Your task to perform on an android device: turn on the 24-hour format for clock Image 0: 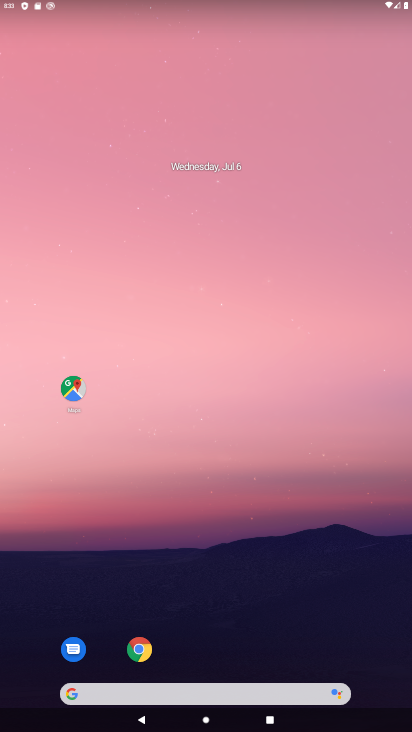
Step 0: drag from (244, 423) to (300, 73)
Your task to perform on an android device: turn on the 24-hour format for clock Image 1: 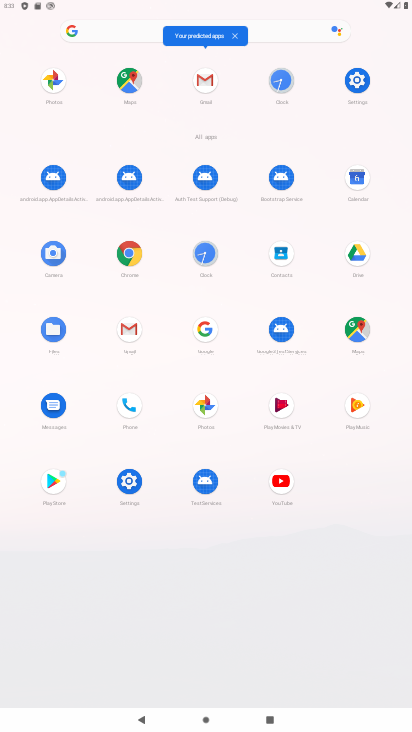
Step 1: drag from (235, 686) to (293, 493)
Your task to perform on an android device: turn on the 24-hour format for clock Image 2: 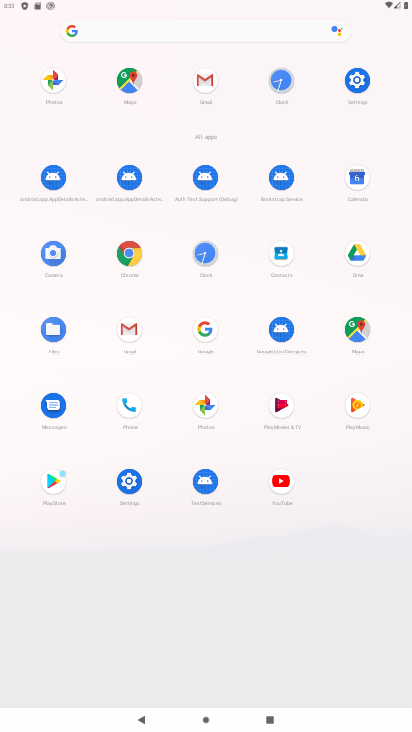
Step 2: click (210, 247)
Your task to perform on an android device: turn on the 24-hour format for clock Image 3: 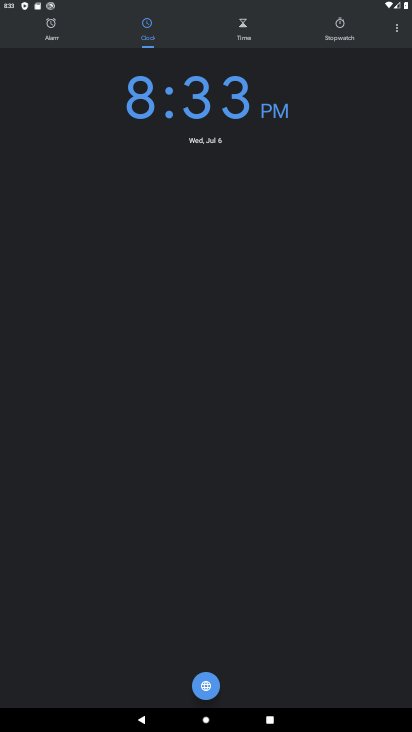
Step 3: click (399, 30)
Your task to perform on an android device: turn on the 24-hour format for clock Image 4: 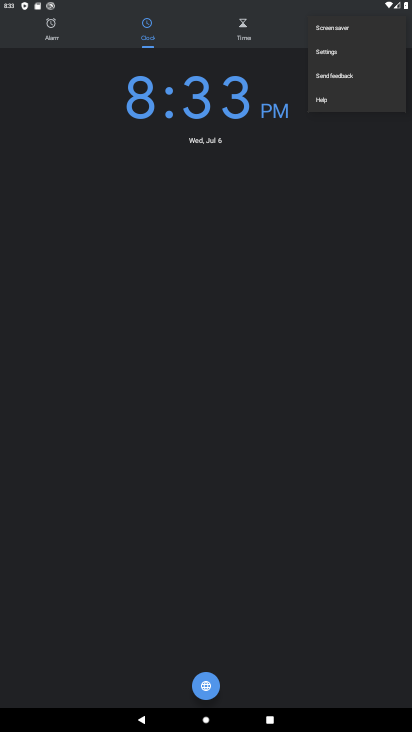
Step 4: click (332, 53)
Your task to perform on an android device: turn on the 24-hour format for clock Image 5: 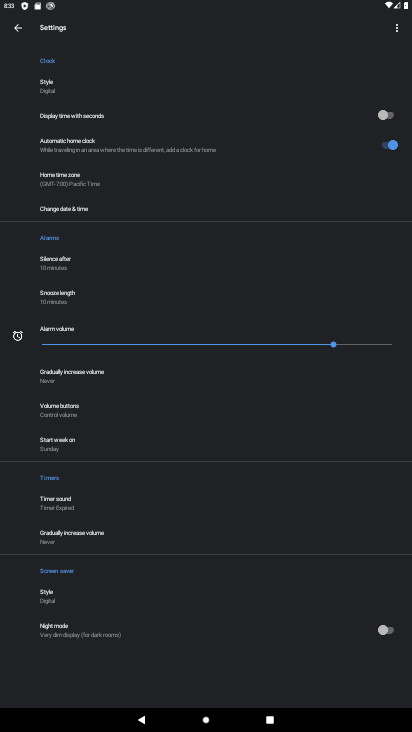
Step 5: click (79, 209)
Your task to perform on an android device: turn on the 24-hour format for clock Image 6: 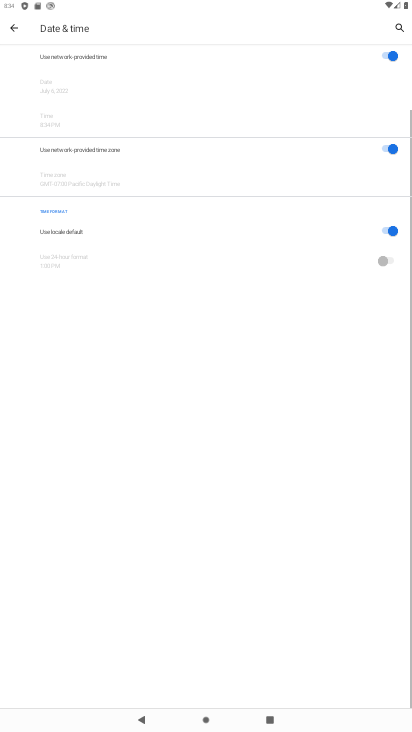
Step 6: click (382, 228)
Your task to perform on an android device: turn on the 24-hour format for clock Image 7: 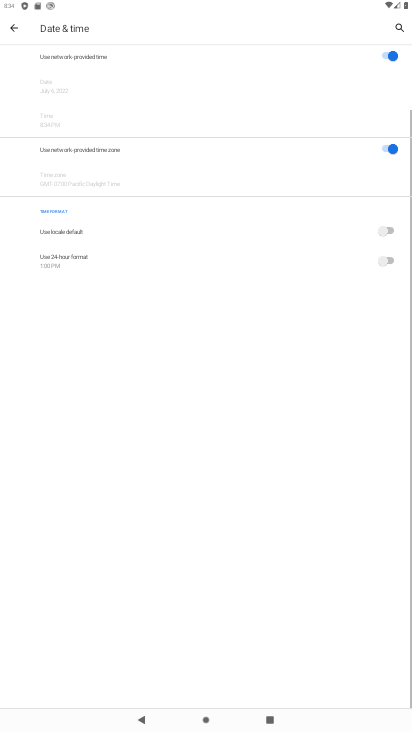
Step 7: click (391, 258)
Your task to perform on an android device: turn on the 24-hour format for clock Image 8: 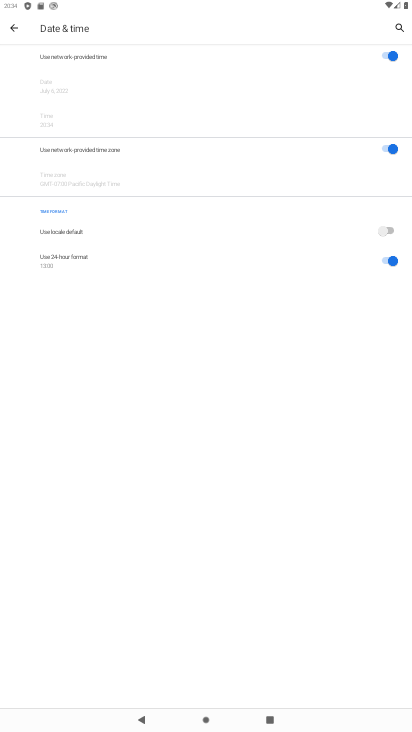
Step 8: task complete